Your task to perform on an android device: Search for Mexican restaurants on Maps Image 0: 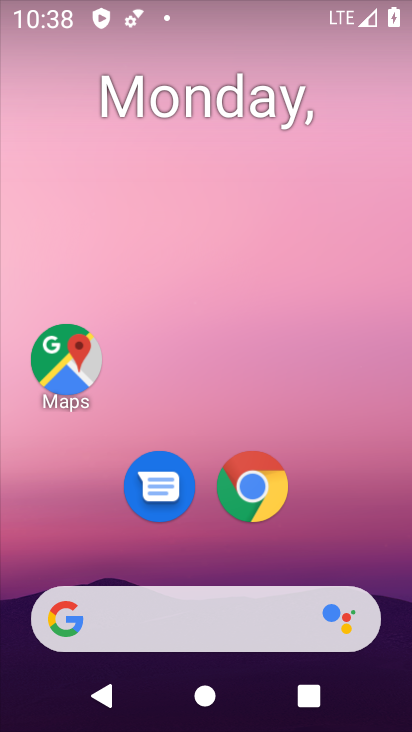
Step 0: click (62, 353)
Your task to perform on an android device: Search for Mexican restaurants on Maps Image 1: 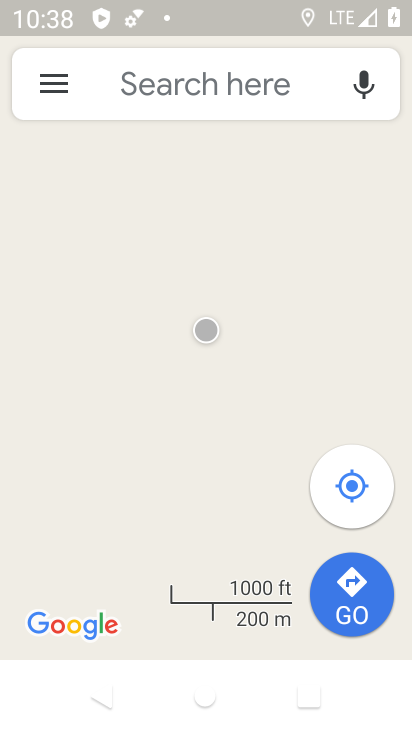
Step 1: click (197, 77)
Your task to perform on an android device: Search for Mexican restaurants on Maps Image 2: 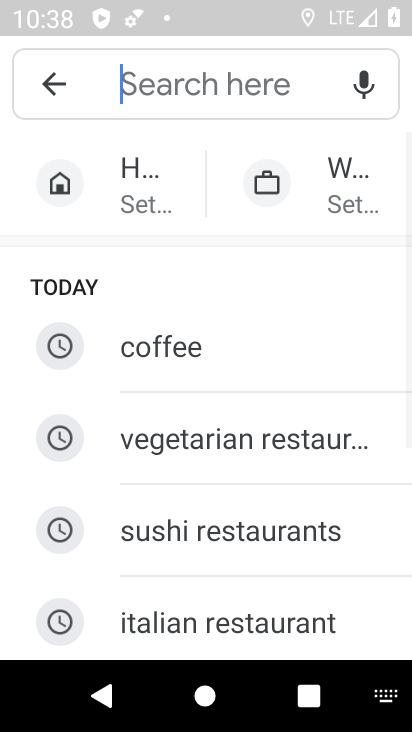
Step 2: click (372, 549)
Your task to perform on an android device: Search for Mexican restaurants on Maps Image 3: 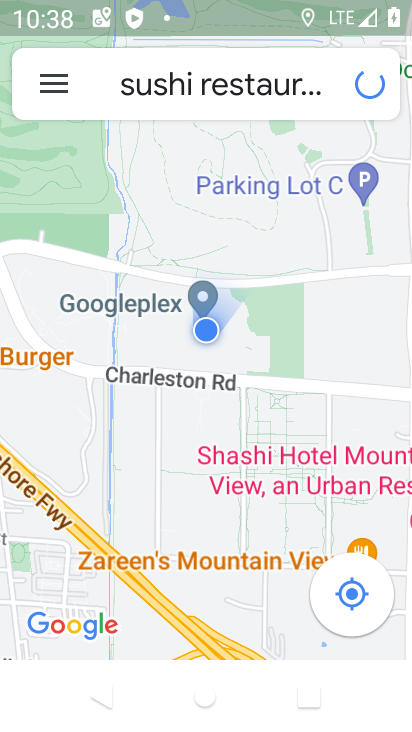
Step 3: click (326, 80)
Your task to perform on an android device: Search for Mexican restaurants on Maps Image 4: 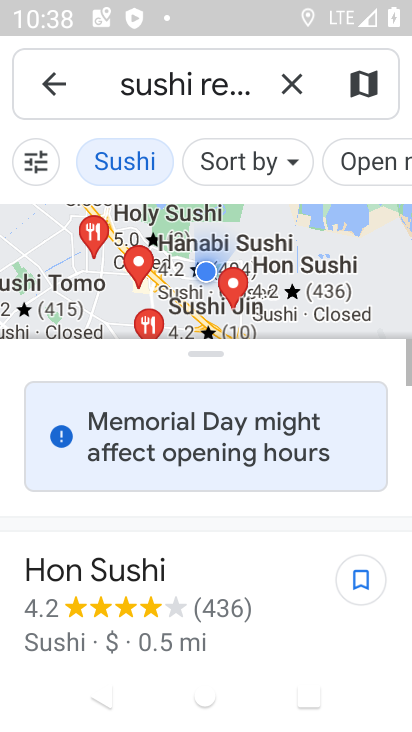
Step 4: click (299, 90)
Your task to perform on an android device: Search for Mexican restaurants on Maps Image 5: 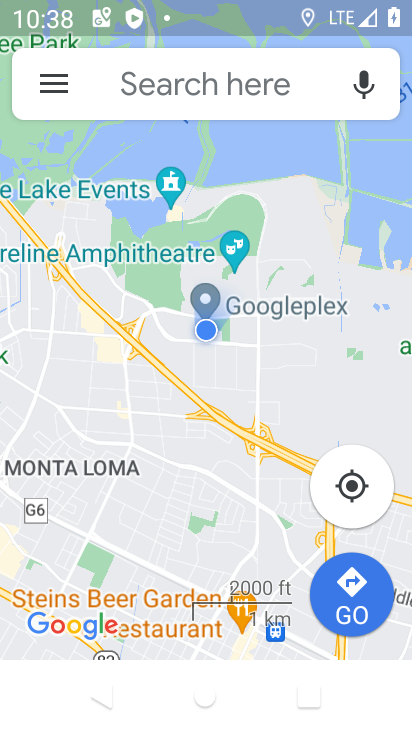
Step 5: click (178, 69)
Your task to perform on an android device: Search for Mexican restaurants on Maps Image 6: 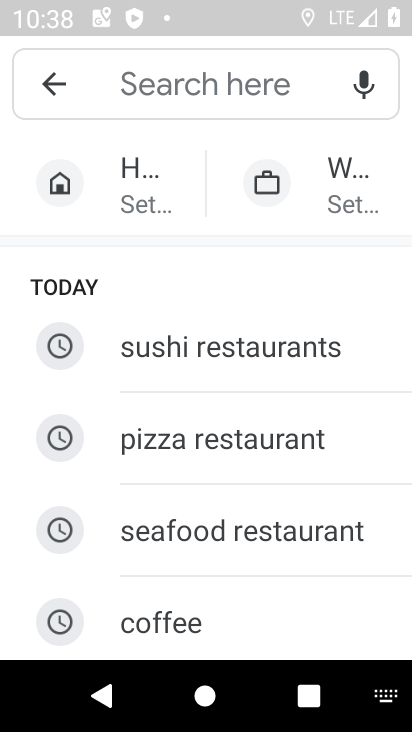
Step 6: drag from (11, 537) to (272, 193)
Your task to perform on an android device: Search for Mexican restaurants on Maps Image 7: 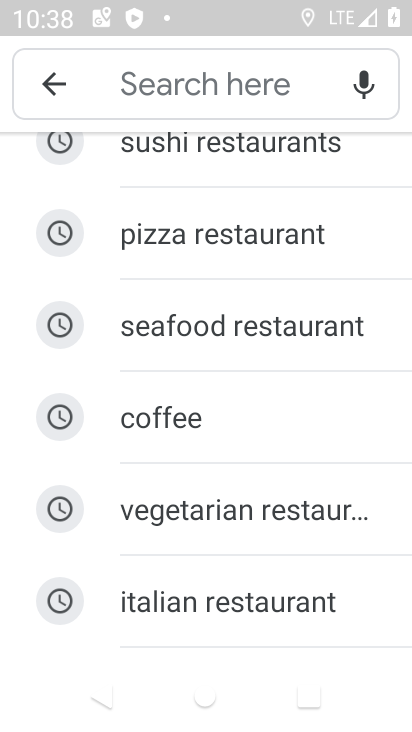
Step 7: drag from (17, 553) to (248, 212)
Your task to perform on an android device: Search for Mexican restaurants on Maps Image 8: 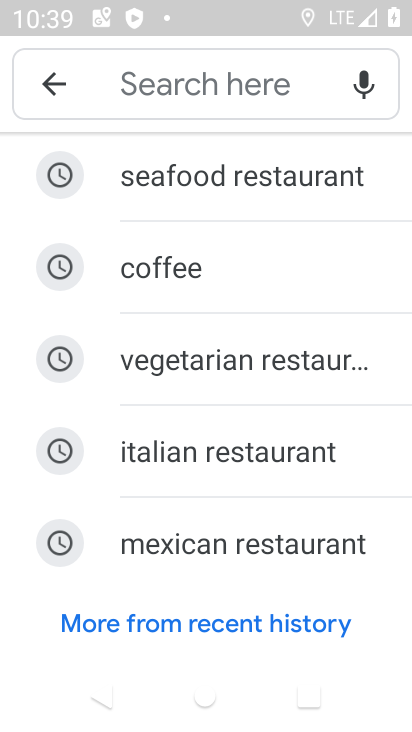
Step 8: click (168, 546)
Your task to perform on an android device: Search for Mexican restaurants on Maps Image 9: 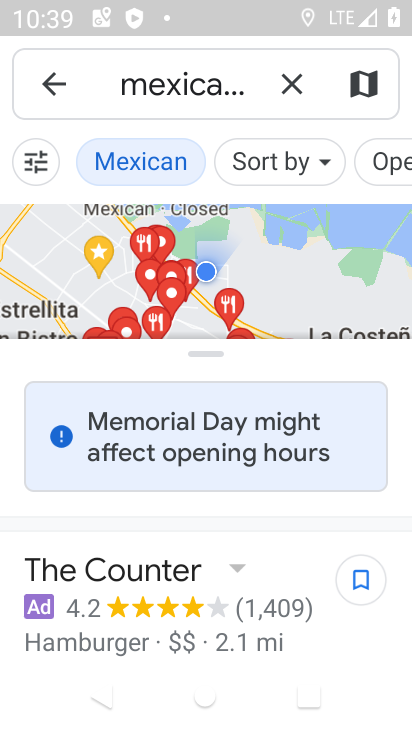
Step 9: task complete